Your task to perform on an android device: Open Reddit.com Image 0: 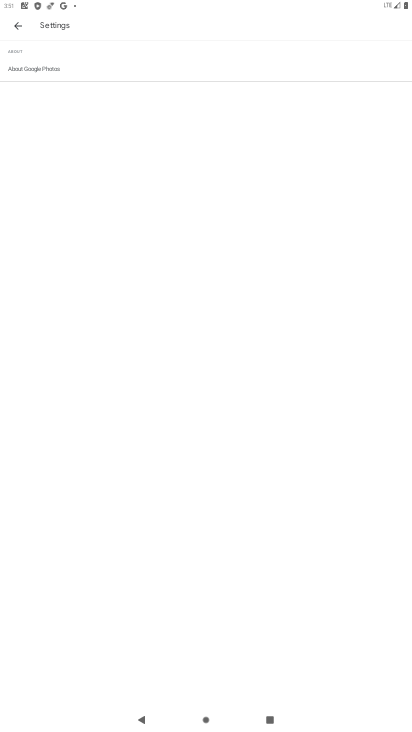
Step 0: press home button
Your task to perform on an android device: Open Reddit.com Image 1: 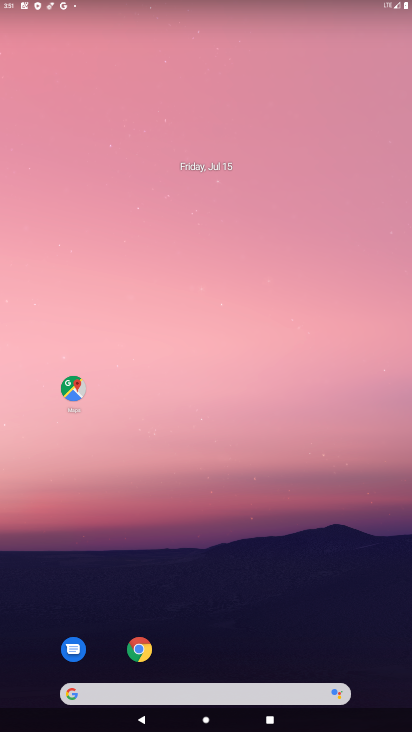
Step 1: click (144, 641)
Your task to perform on an android device: Open Reddit.com Image 2: 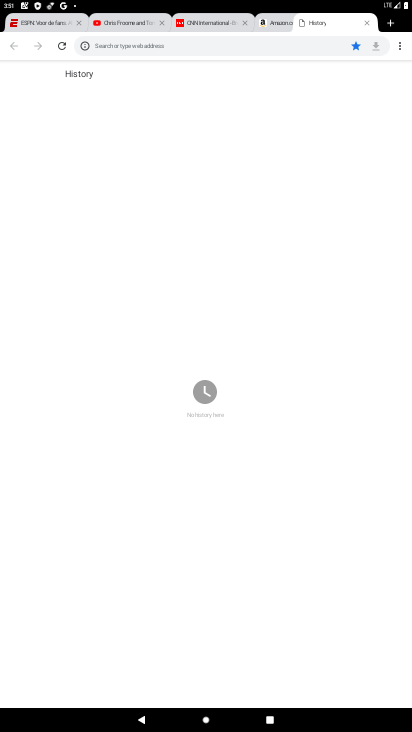
Step 2: click (182, 48)
Your task to perform on an android device: Open Reddit.com Image 3: 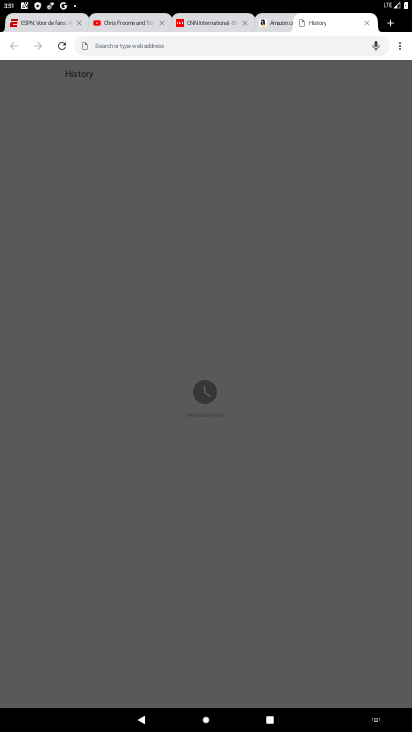
Step 3: type "Reddit.com"
Your task to perform on an android device: Open Reddit.com Image 4: 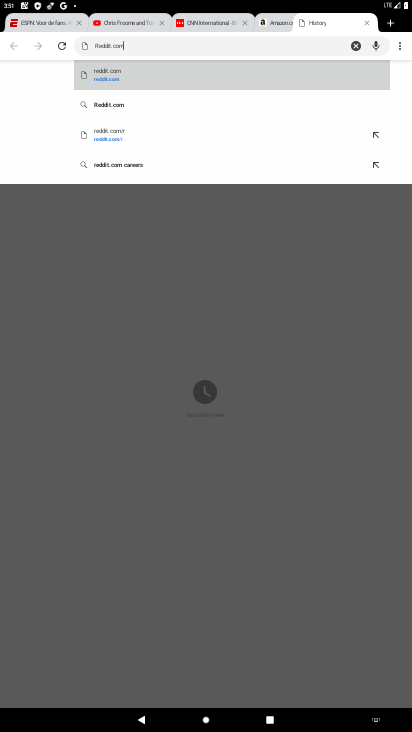
Step 4: click (146, 84)
Your task to perform on an android device: Open Reddit.com Image 5: 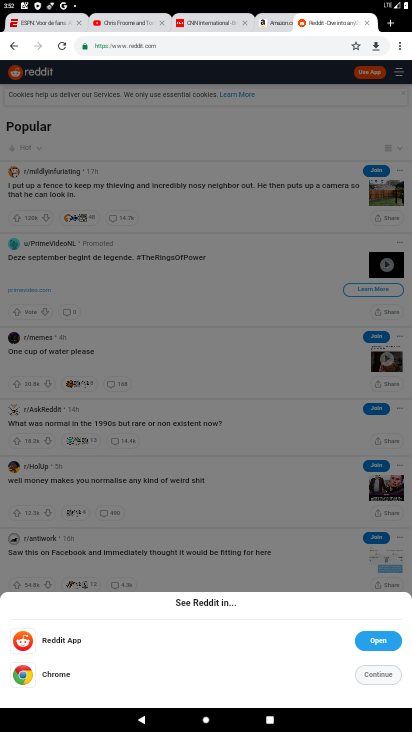
Step 5: task complete